Your task to perform on an android device: Open calendar and show me the fourth week of next month Image 0: 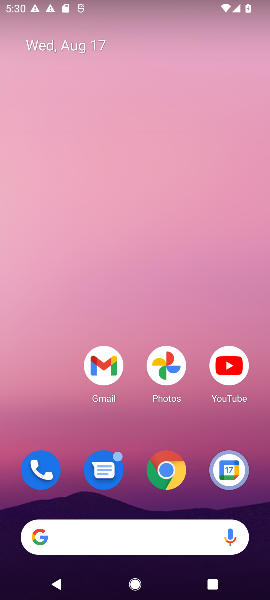
Step 0: drag from (123, 515) to (147, 0)
Your task to perform on an android device: Open calendar and show me the fourth week of next month Image 1: 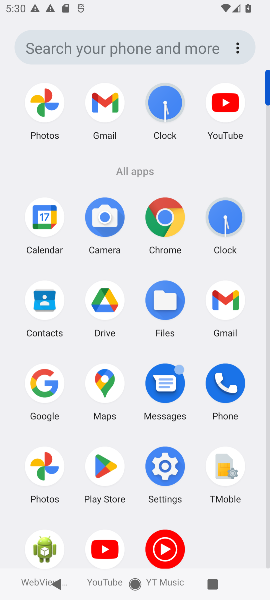
Step 1: click (62, 224)
Your task to perform on an android device: Open calendar and show me the fourth week of next month Image 2: 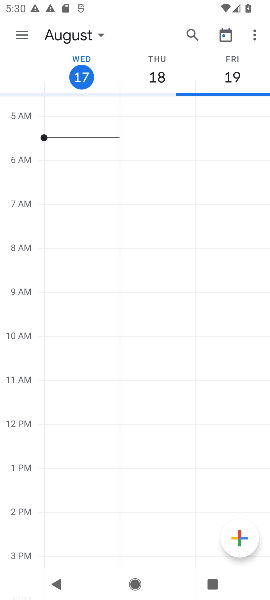
Step 2: click (21, 36)
Your task to perform on an android device: Open calendar and show me the fourth week of next month Image 3: 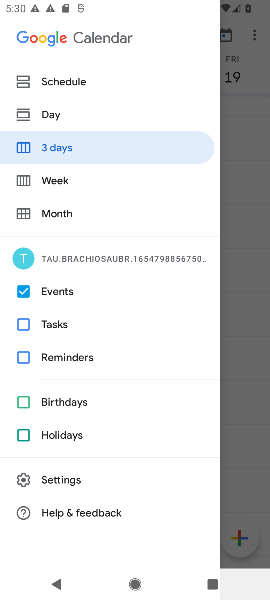
Step 3: click (58, 178)
Your task to perform on an android device: Open calendar and show me the fourth week of next month Image 4: 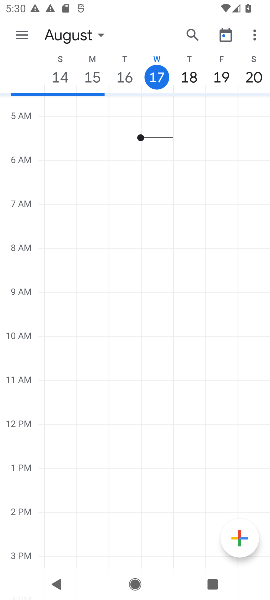
Step 4: click (85, 32)
Your task to perform on an android device: Open calendar and show me the fourth week of next month Image 5: 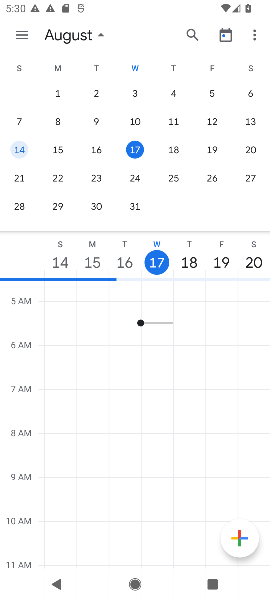
Step 5: drag from (200, 143) to (35, 143)
Your task to perform on an android device: Open calendar and show me the fourth week of next month Image 6: 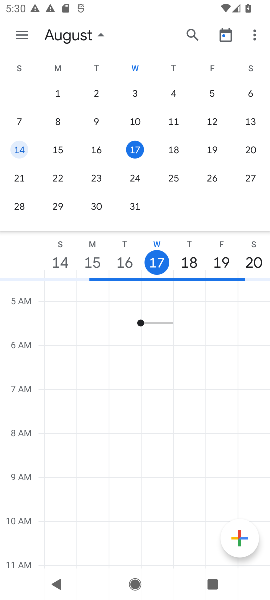
Step 6: drag from (232, 146) to (57, 114)
Your task to perform on an android device: Open calendar and show me the fourth week of next month Image 7: 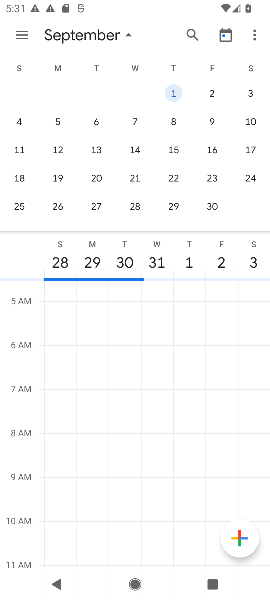
Step 7: click (134, 206)
Your task to perform on an android device: Open calendar and show me the fourth week of next month Image 8: 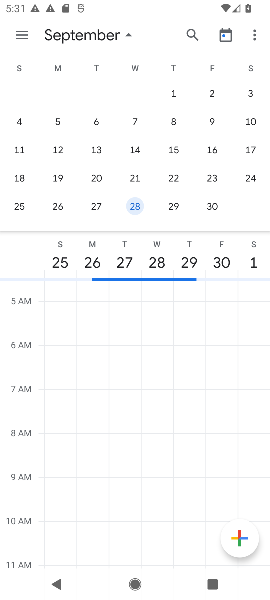
Step 8: click (131, 206)
Your task to perform on an android device: Open calendar and show me the fourth week of next month Image 9: 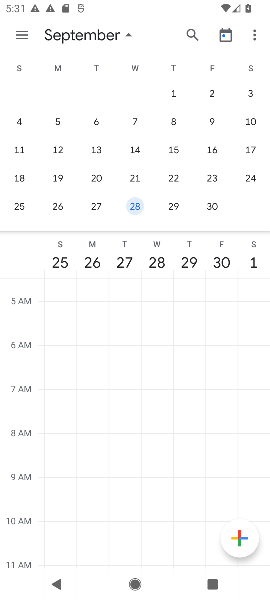
Step 9: task complete